Your task to perform on an android device: open chrome and create a bookmark for the current page Image 0: 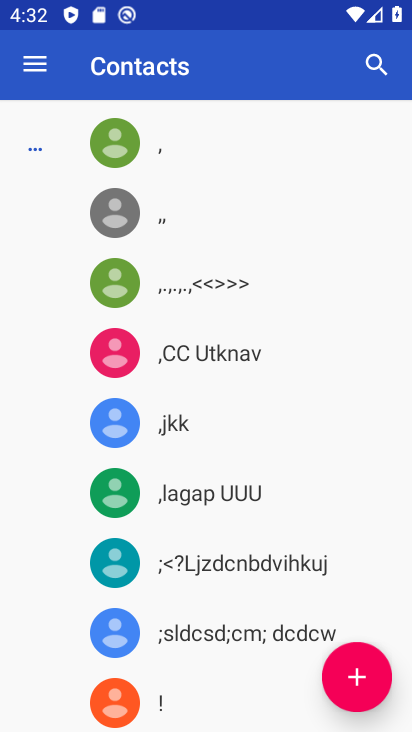
Step 0: press home button
Your task to perform on an android device: open chrome and create a bookmark for the current page Image 1: 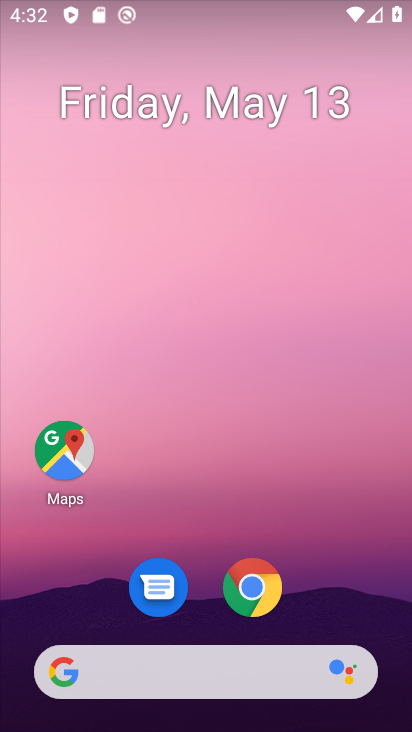
Step 1: click (268, 586)
Your task to perform on an android device: open chrome and create a bookmark for the current page Image 2: 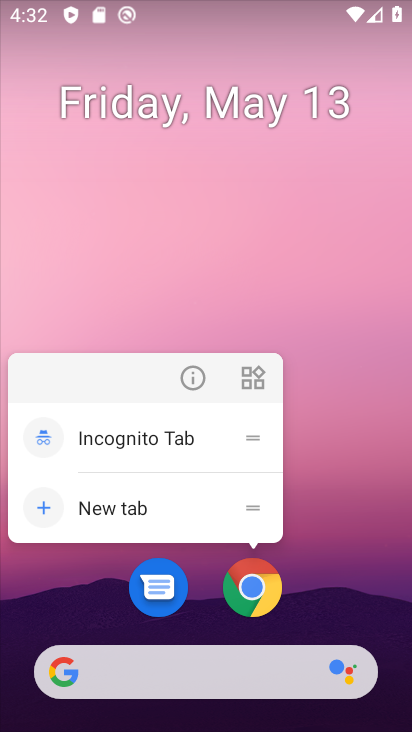
Step 2: click (254, 583)
Your task to perform on an android device: open chrome and create a bookmark for the current page Image 3: 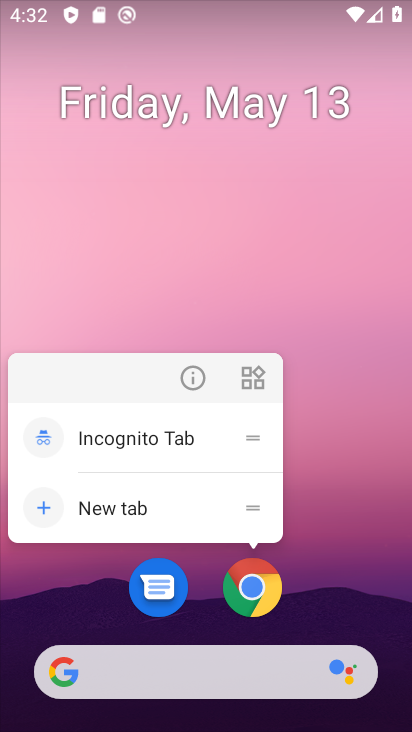
Step 3: click (254, 583)
Your task to perform on an android device: open chrome and create a bookmark for the current page Image 4: 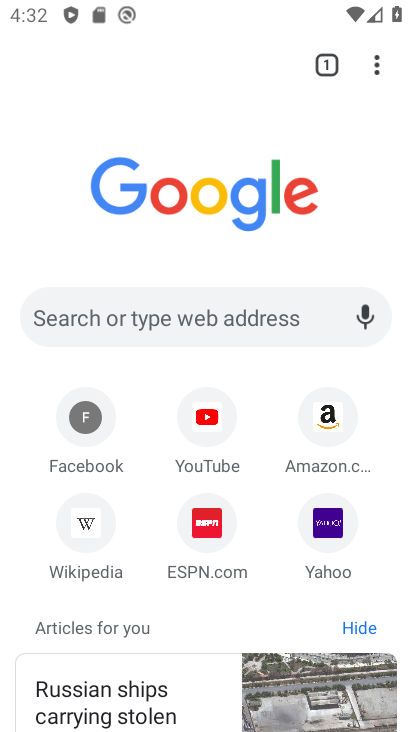
Step 4: task complete